Your task to perform on an android device: turn off javascript in the chrome app Image 0: 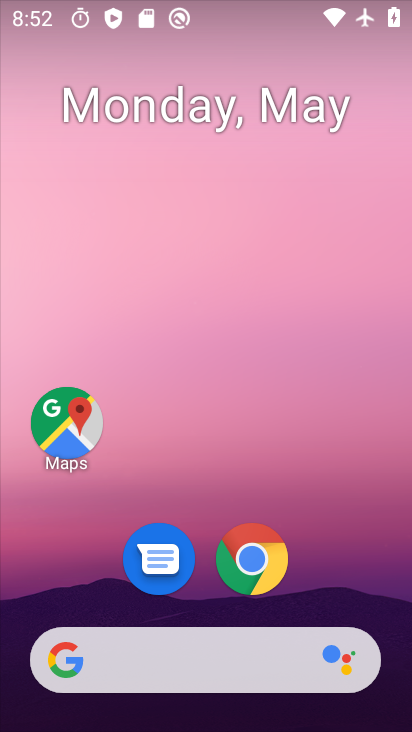
Step 0: click (246, 555)
Your task to perform on an android device: turn off javascript in the chrome app Image 1: 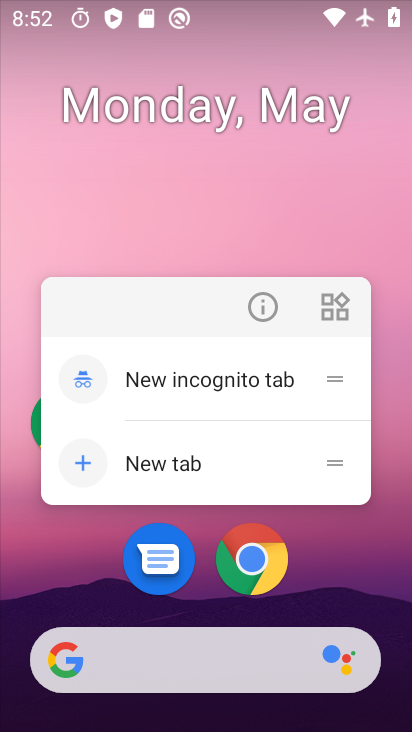
Step 1: click (246, 555)
Your task to perform on an android device: turn off javascript in the chrome app Image 2: 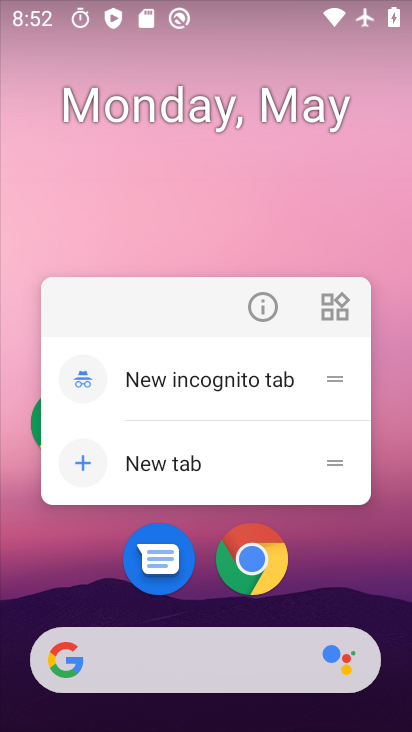
Step 2: click (248, 558)
Your task to perform on an android device: turn off javascript in the chrome app Image 3: 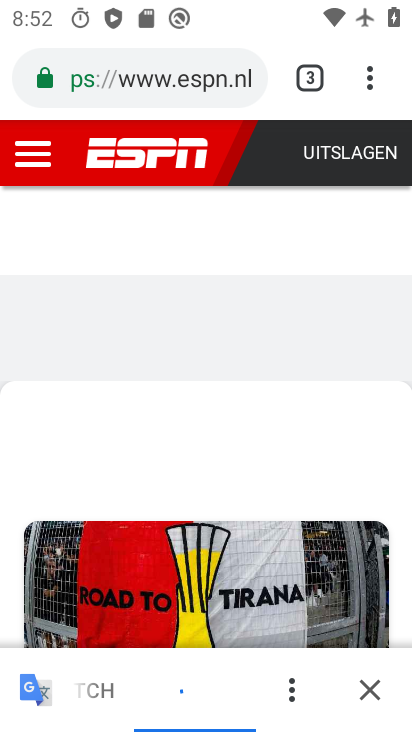
Step 3: click (372, 87)
Your task to perform on an android device: turn off javascript in the chrome app Image 4: 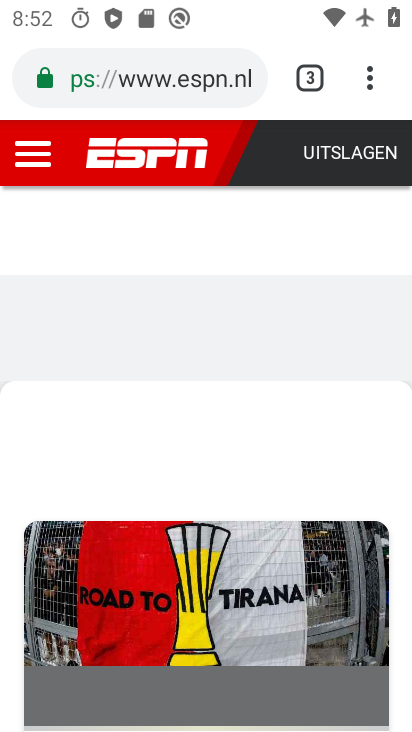
Step 4: click (367, 99)
Your task to perform on an android device: turn off javascript in the chrome app Image 5: 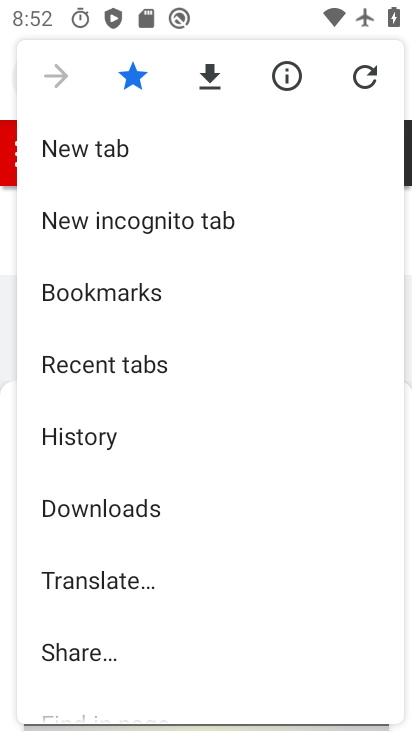
Step 5: drag from (154, 668) to (159, 319)
Your task to perform on an android device: turn off javascript in the chrome app Image 6: 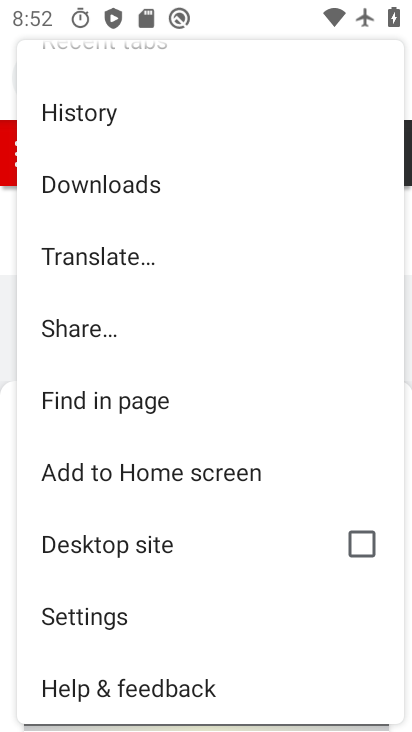
Step 6: click (138, 615)
Your task to perform on an android device: turn off javascript in the chrome app Image 7: 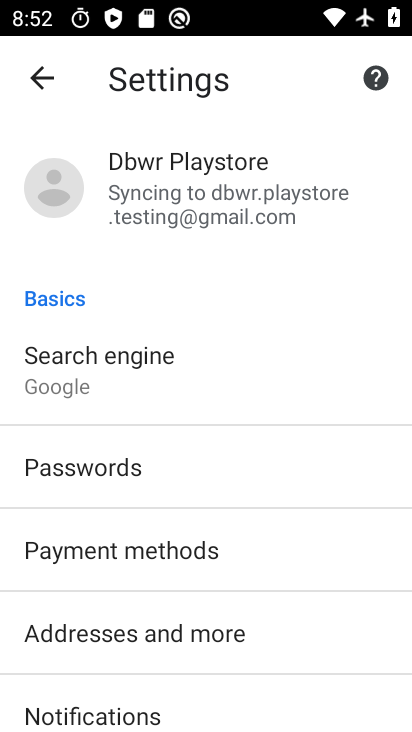
Step 7: drag from (142, 695) to (170, 265)
Your task to perform on an android device: turn off javascript in the chrome app Image 8: 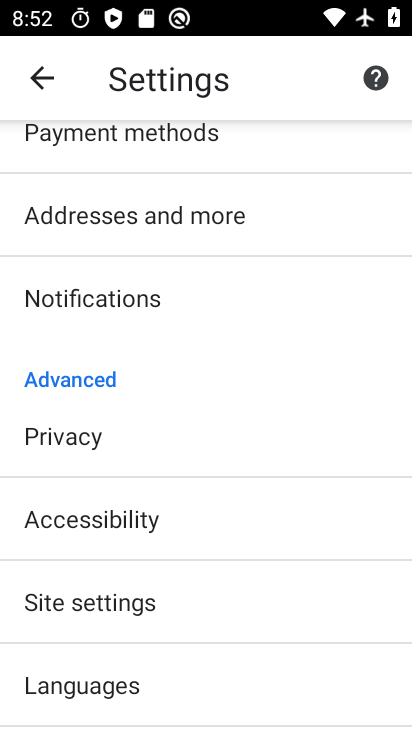
Step 8: click (144, 612)
Your task to perform on an android device: turn off javascript in the chrome app Image 9: 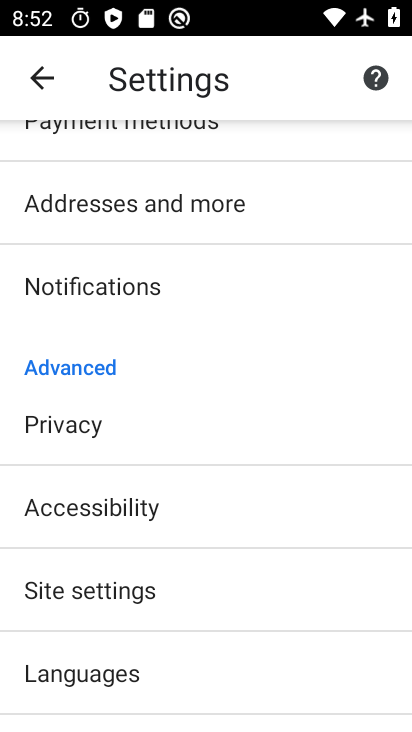
Step 9: click (144, 591)
Your task to perform on an android device: turn off javascript in the chrome app Image 10: 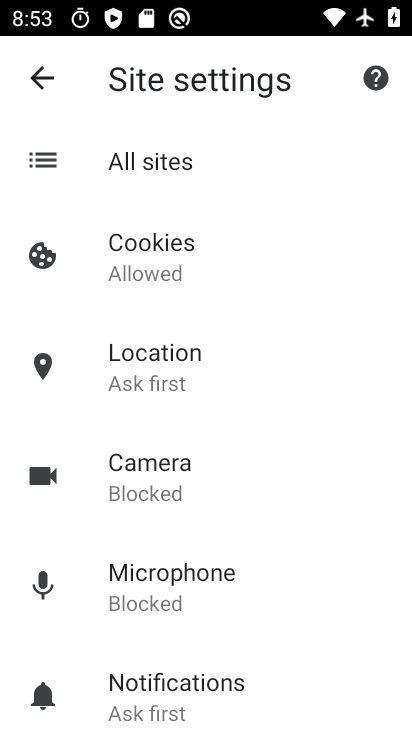
Step 10: drag from (208, 700) to (199, 499)
Your task to perform on an android device: turn off javascript in the chrome app Image 11: 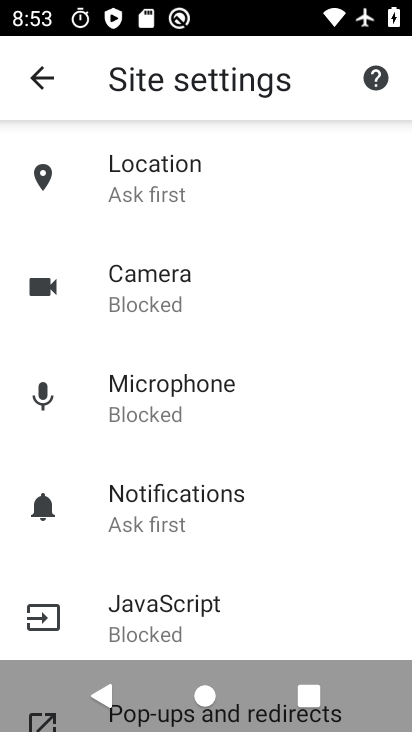
Step 11: click (209, 628)
Your task to perform on an android device: turn off javascript in the chrome app Image 12: 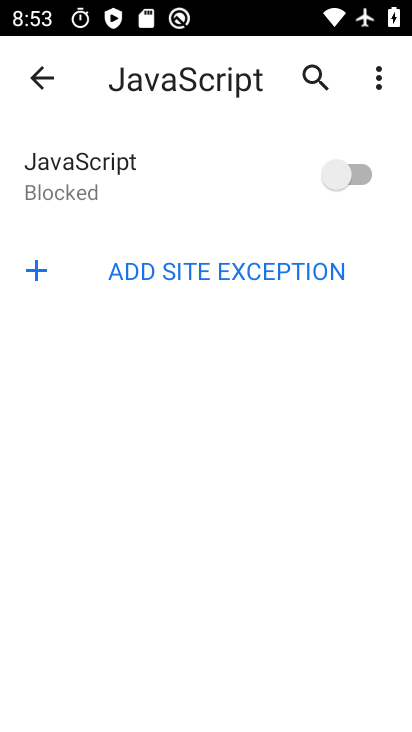
Step 12: task complete